Your task to perform on an android device: Clear the shopping cart on amazon.com. Add macbook pro 13 inch to the cart on amazon.com Image 0: 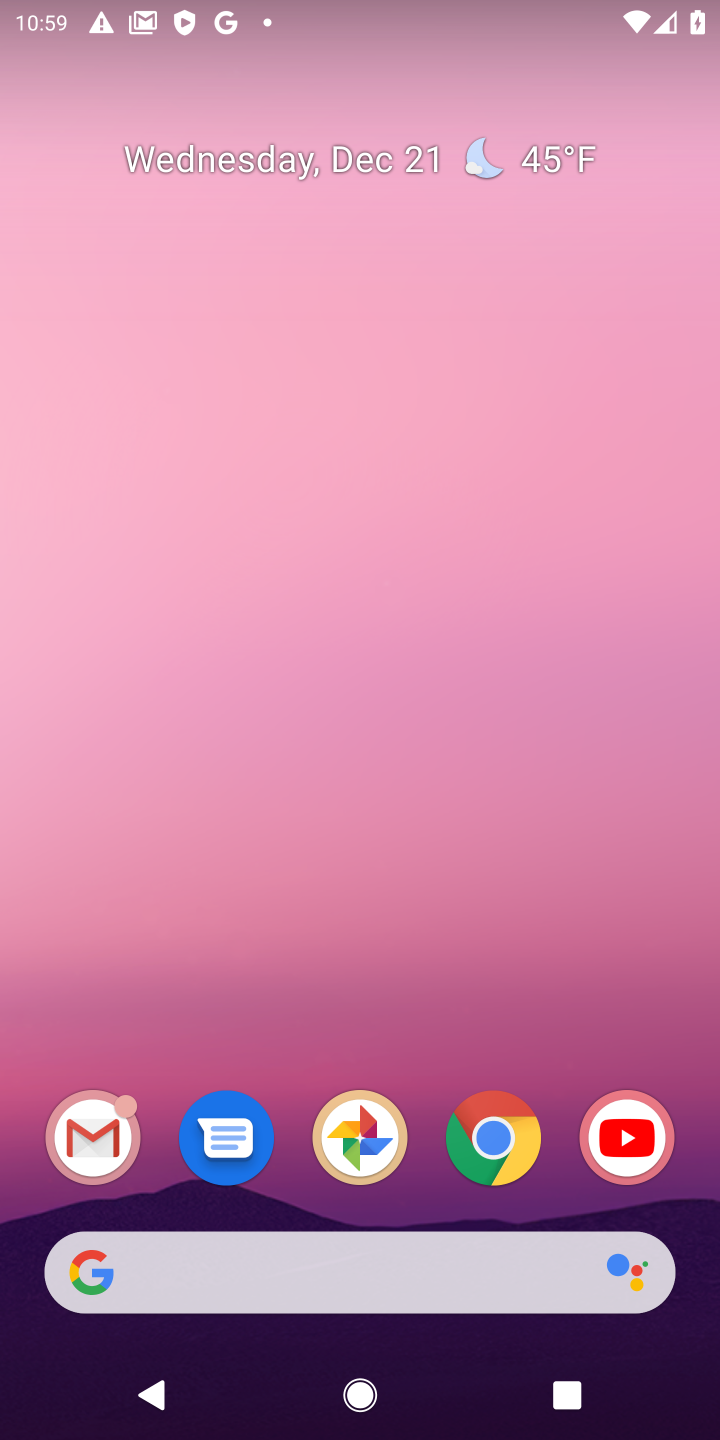
Step 0: click (506, 1147)
Your task to perform on an android device: Clear the shopping cart on amazon.com. Add macbook pro 13 inch to the cart on amazon.com Image 1: 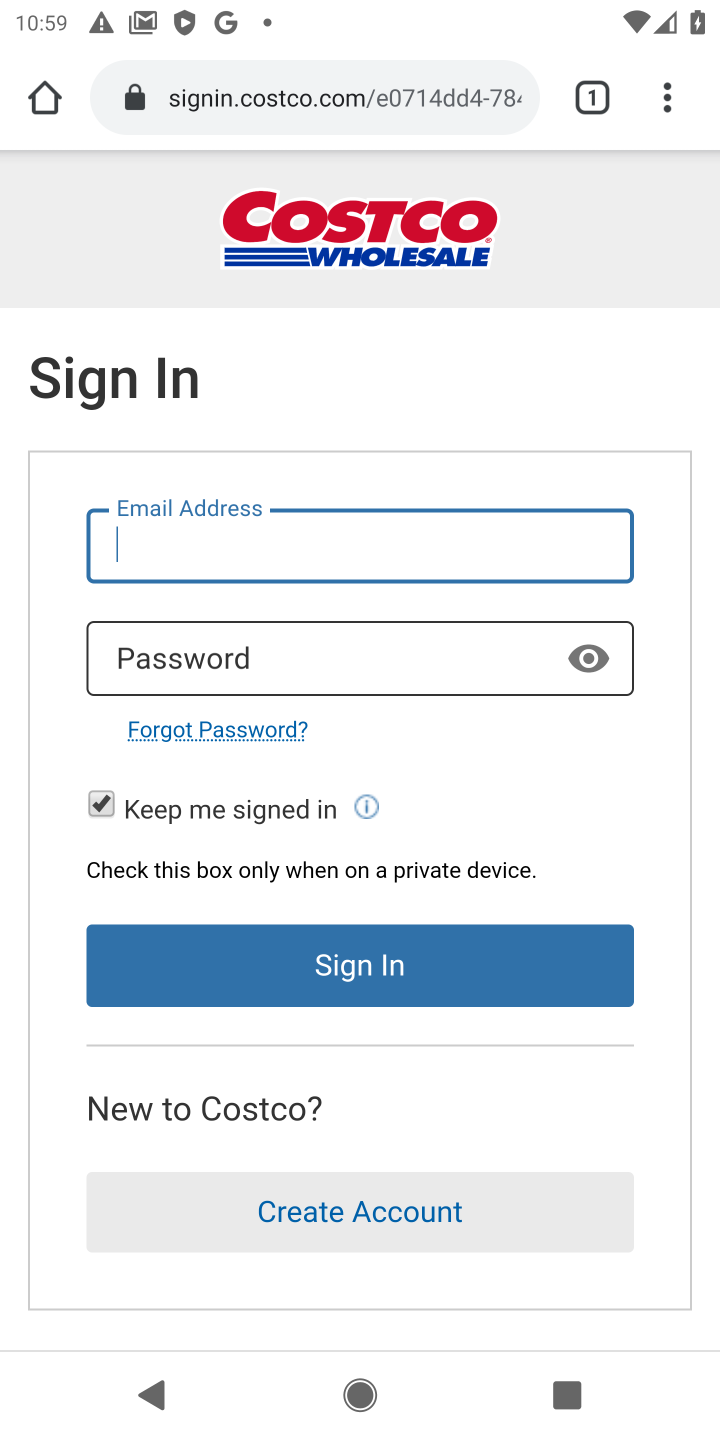
Step 1: click (276, 96)
Your task to perform on an android device: Clear the shopping cart on amazon.com. Add macbook pro 13 inch to the cart on amazon.com Image 2: 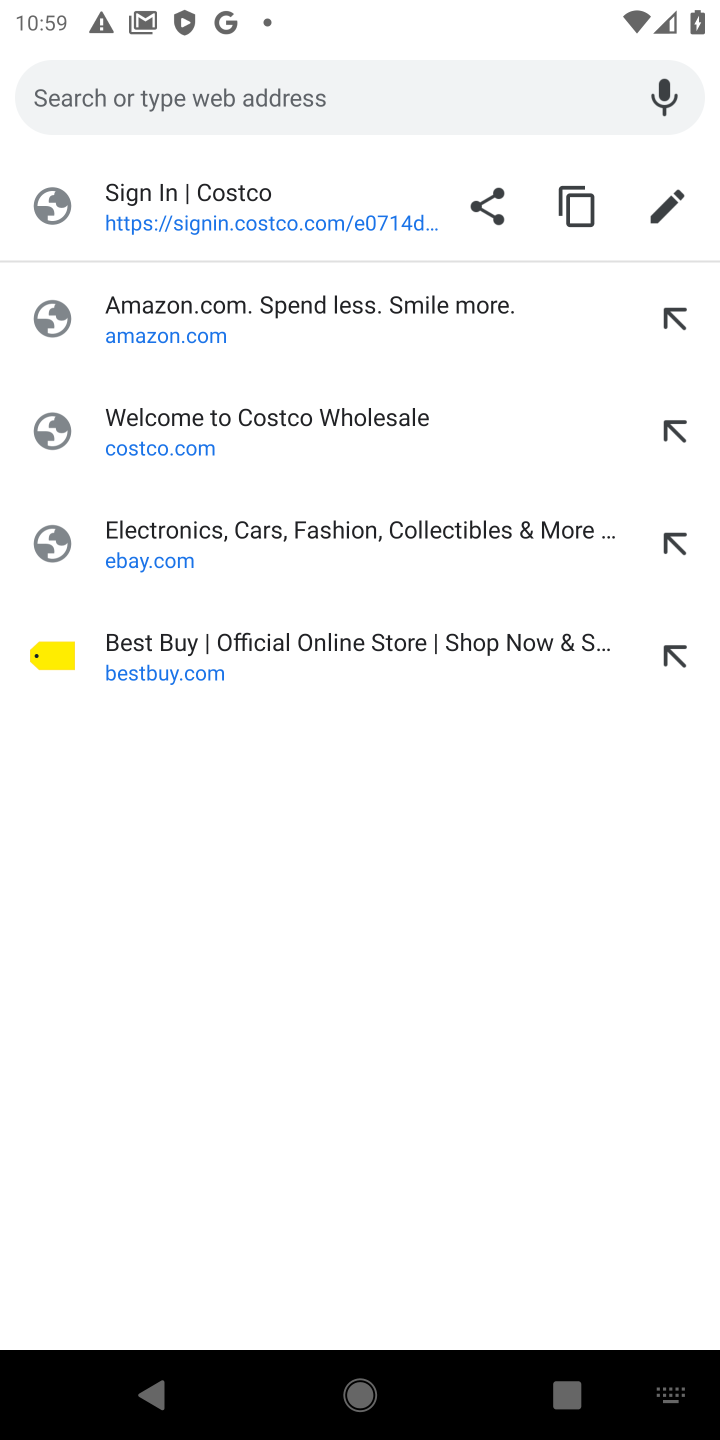
Step 2: click (150, 346)
Your task to perform on an android device: Clear the shopping cart on amazon.com. Add macbook pro 13 inch to the cart on amazon.com Image 3: 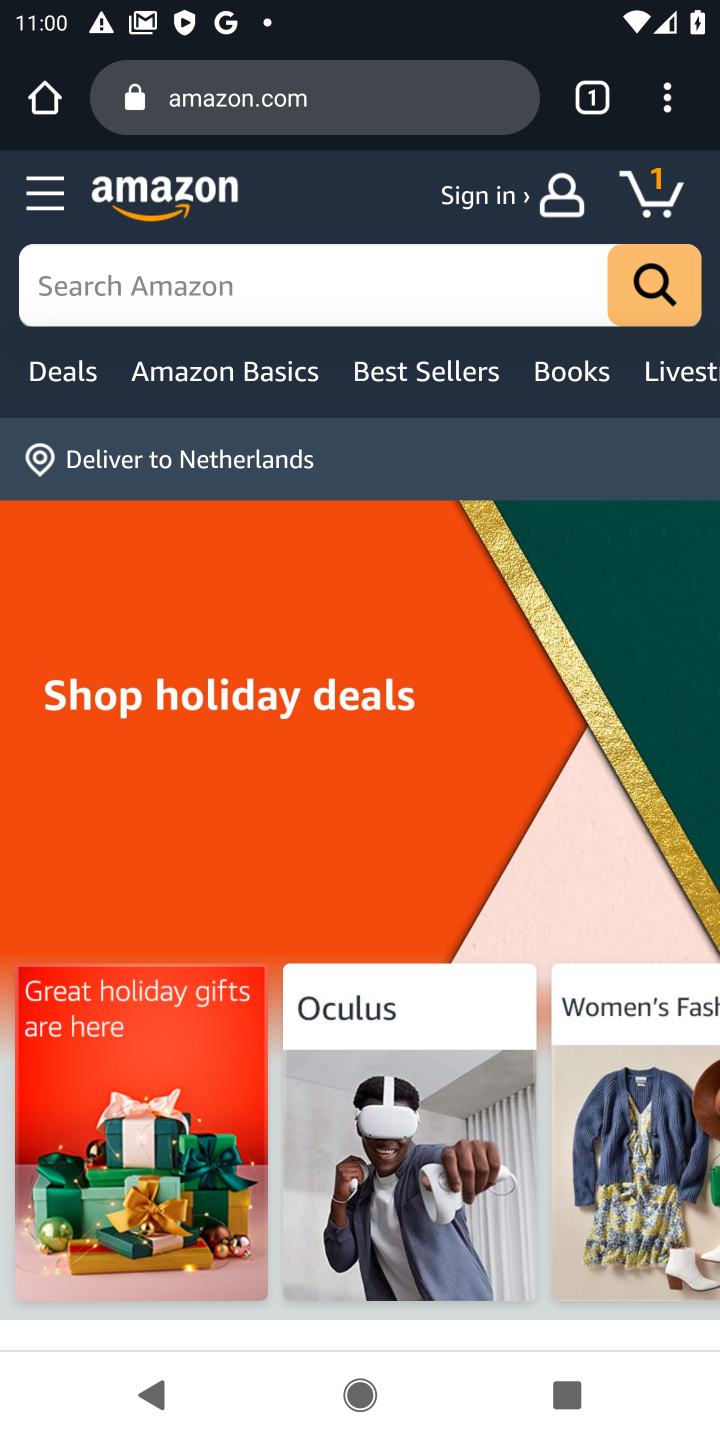
Step 3: click (647, 204)
Your task to perform on an android device: Clear the shopping cart on amazon.com. Add macbook pro 13 inch to the cart on amazon.com Image 4: 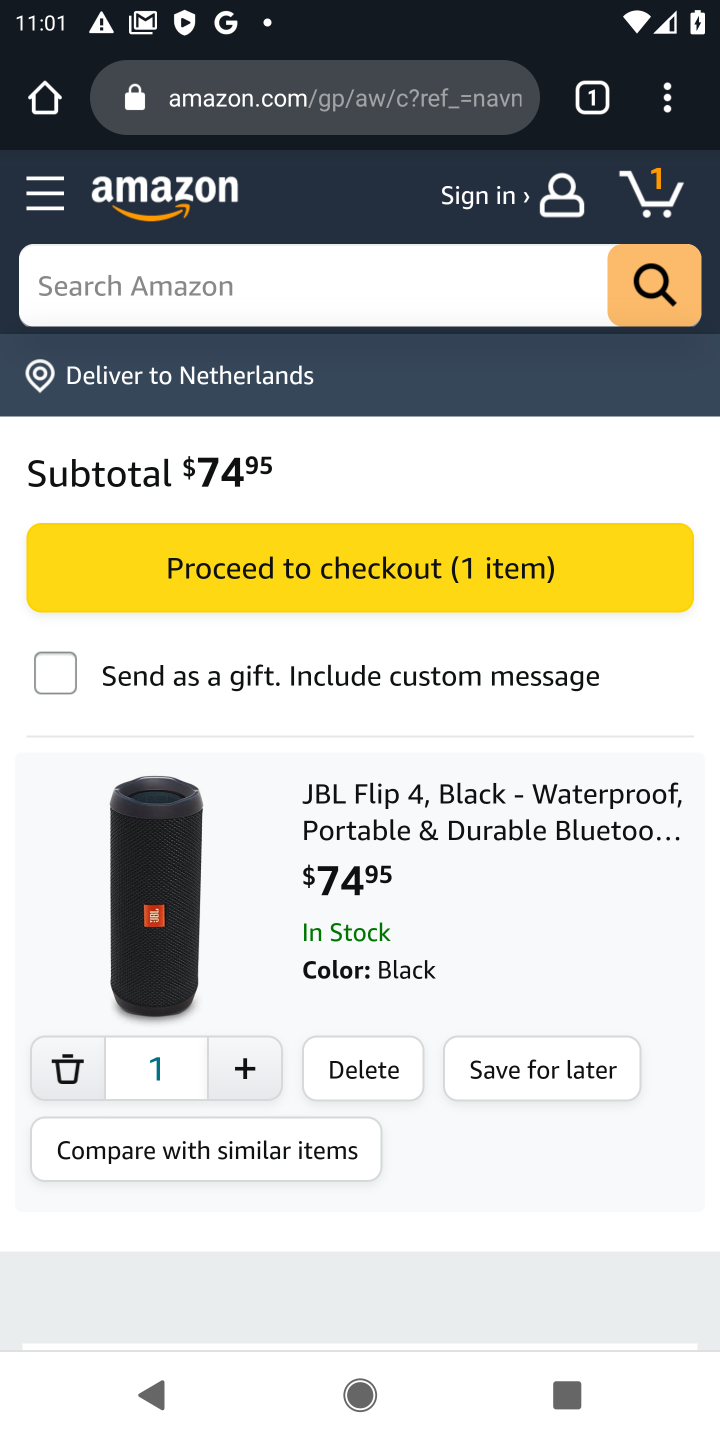
Step 4: click (368, 1065)
Your task to perform on an android device: Clear the shopping cart on amazon.com. Add macbook pro 13 inch to the cart on amazon.com Image 5: 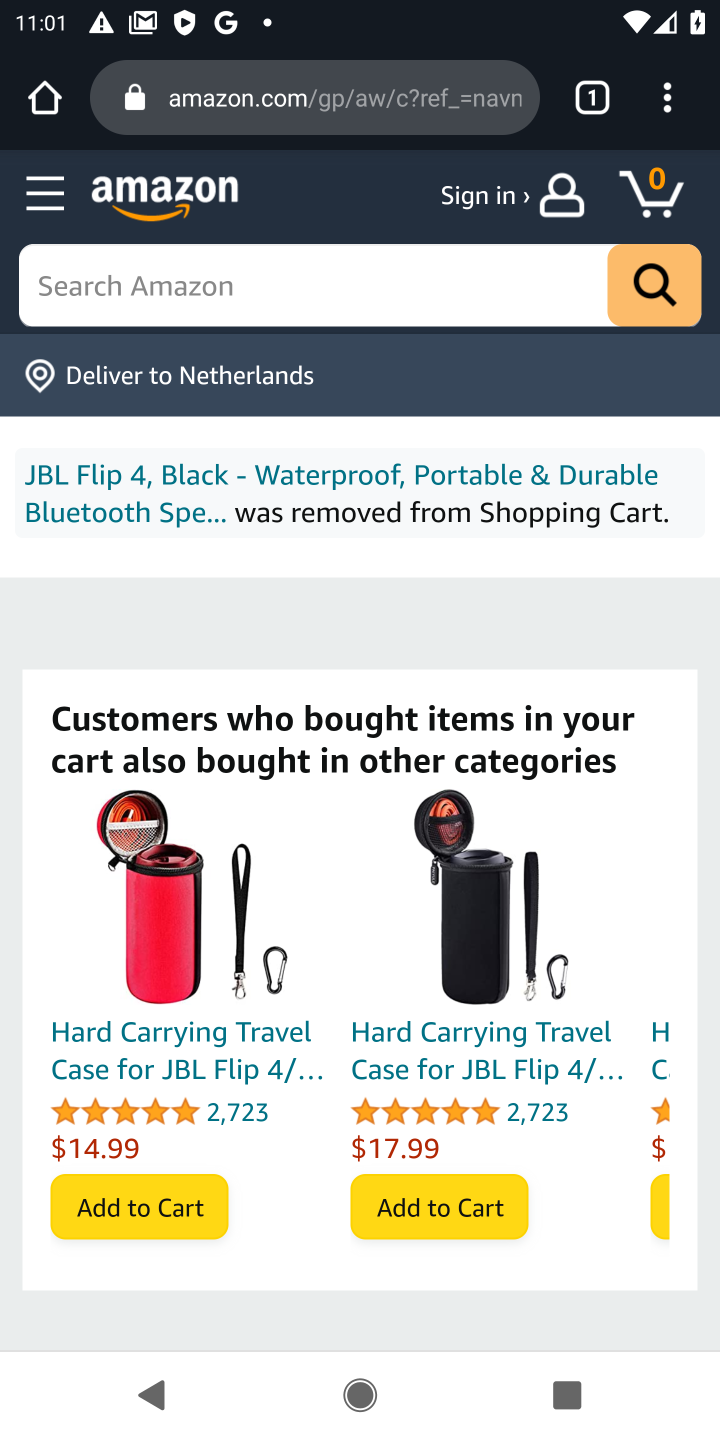
Step 5: click (164, 281)
Your task to perform on an android device: Clear the shopping cart on amazon.com. Add macbook pro 13 inch to the cart on amazon.com Image 6: 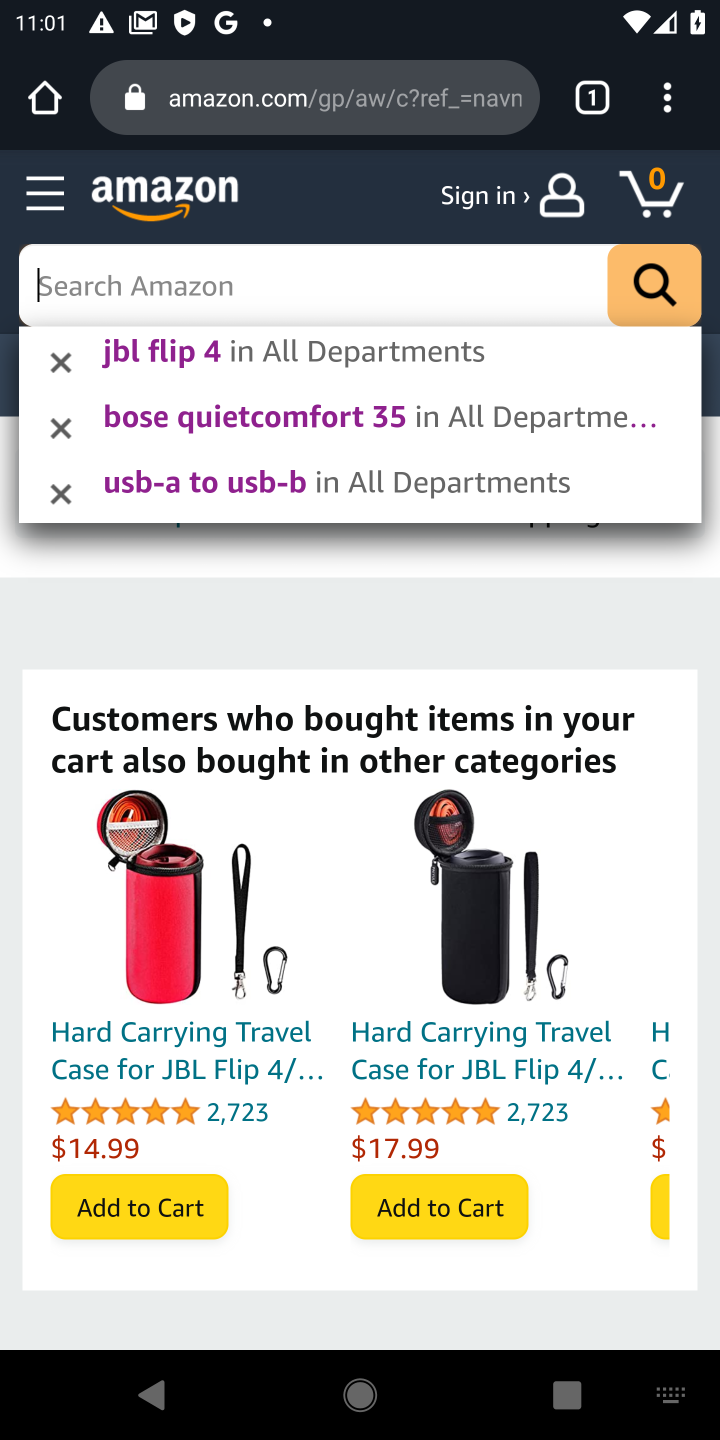
Step 6: click (89, 285)
Your task to perform on an android device: Clear the shopping cart on amazon.com. Add macbook pro 13 inch to the cart on amazon.com Image 7: 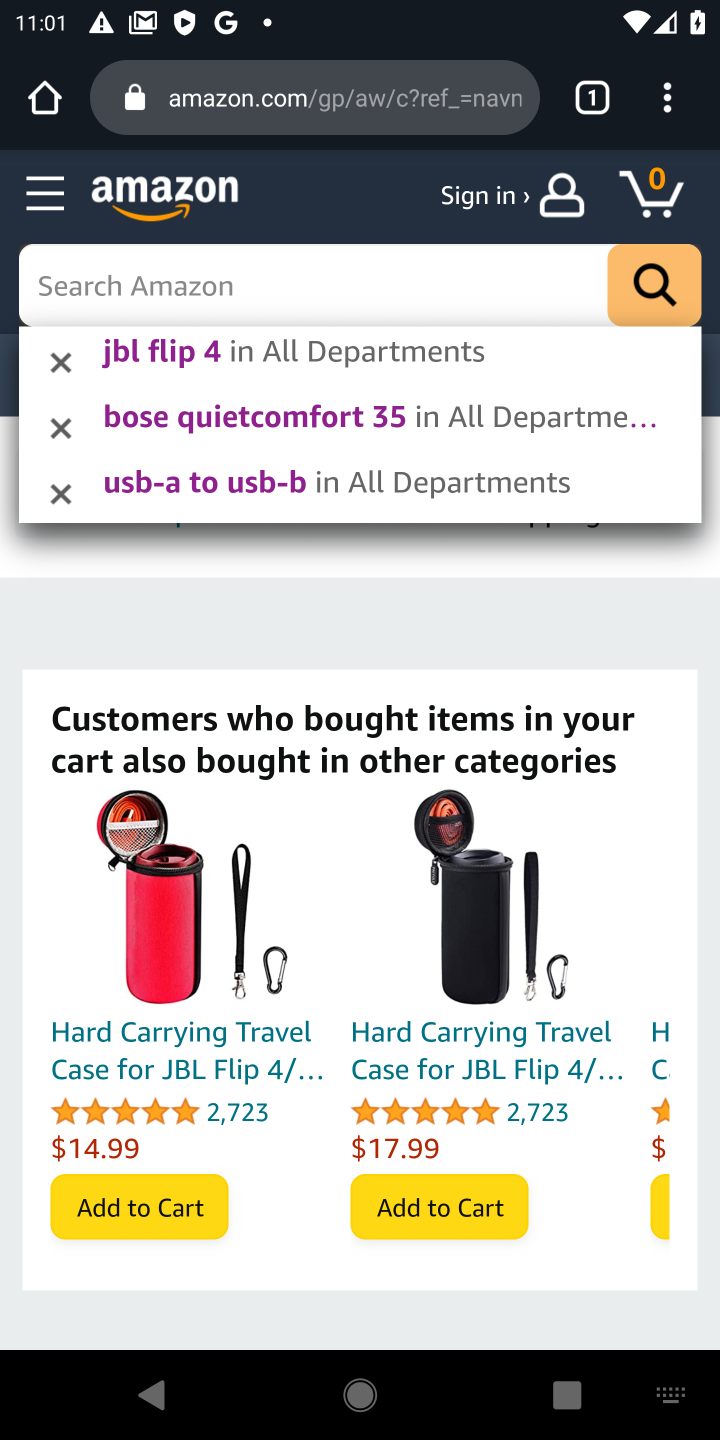
Step 7: type "macbook pro 13 inch"
Your task to perform on an android device: Clear the shopping cart on amazon.com. Add macbook pro 13 inch to the cart on amazon.com Image 8: 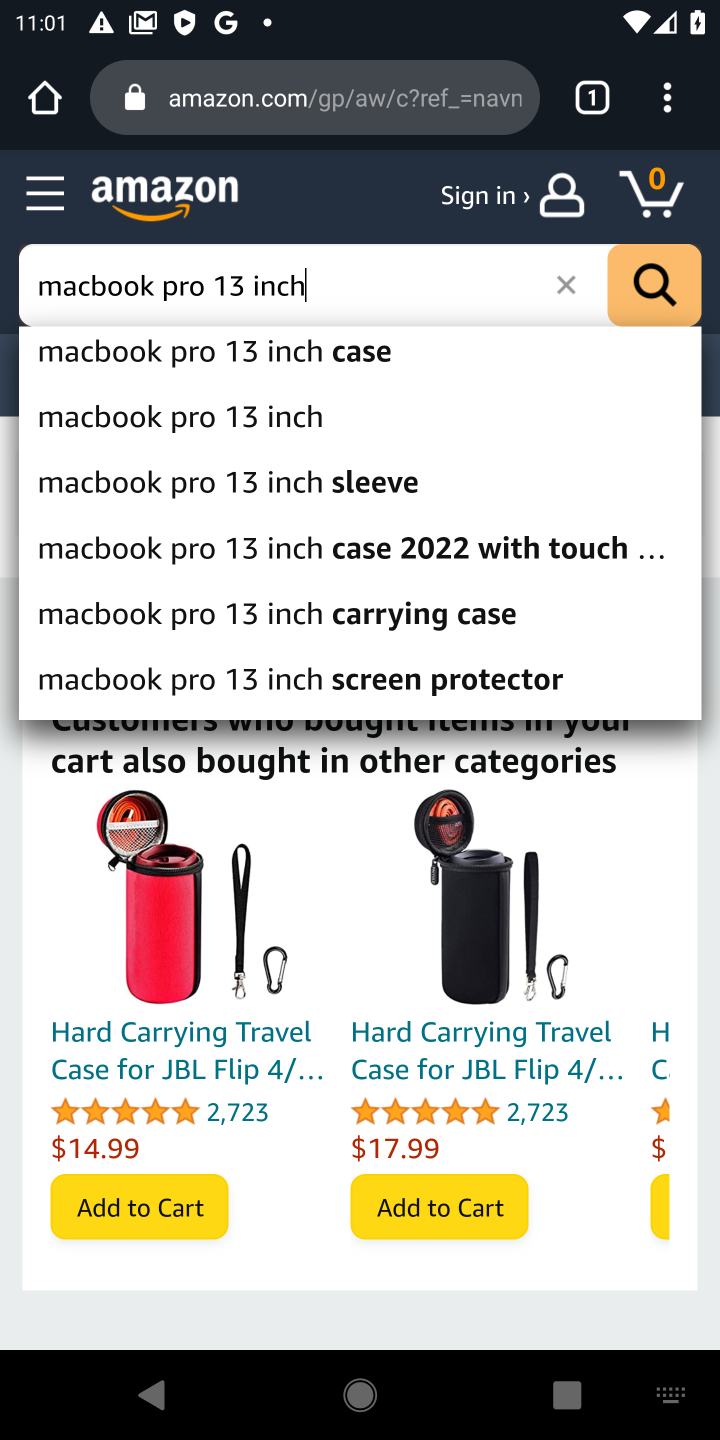
Step 8: click (229, 424)
Your task to perform on an android device: Clear the shopping cart on amazon.com. Add macbook pro 13 inch to the cart on amazon.com Image 9: 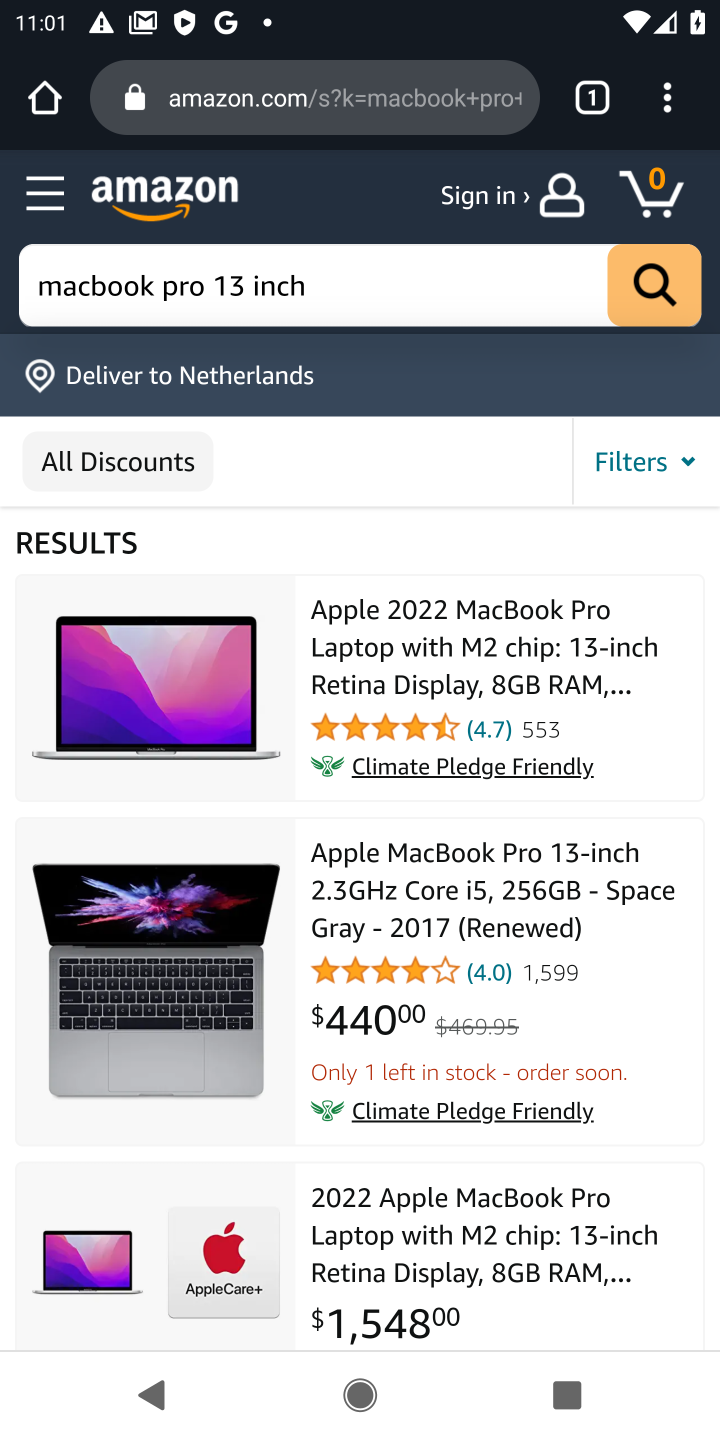
Step 9: drag from (407, 864) to (429, 608)
Your task to perform on an android device: Clear the shopping cart on amazon.com. Add macbook pro 13 inch to the cart on amazon.com Image 10: 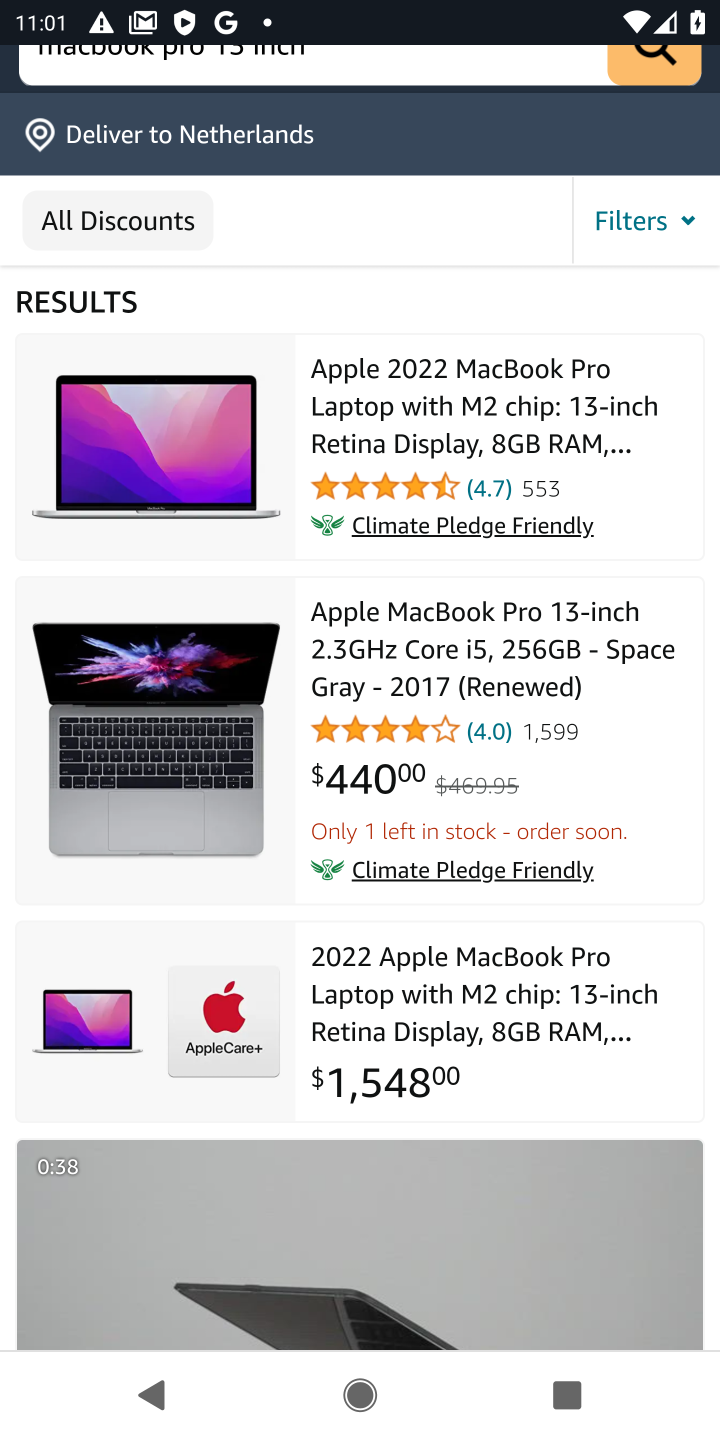
Step 10: drag from (383, 797) to (399, 449)
Your task to perform on an android device: Clear the shopping cart on amazon.com. Add macbook pro 13 inch to the cart on amazon.com Image 11: 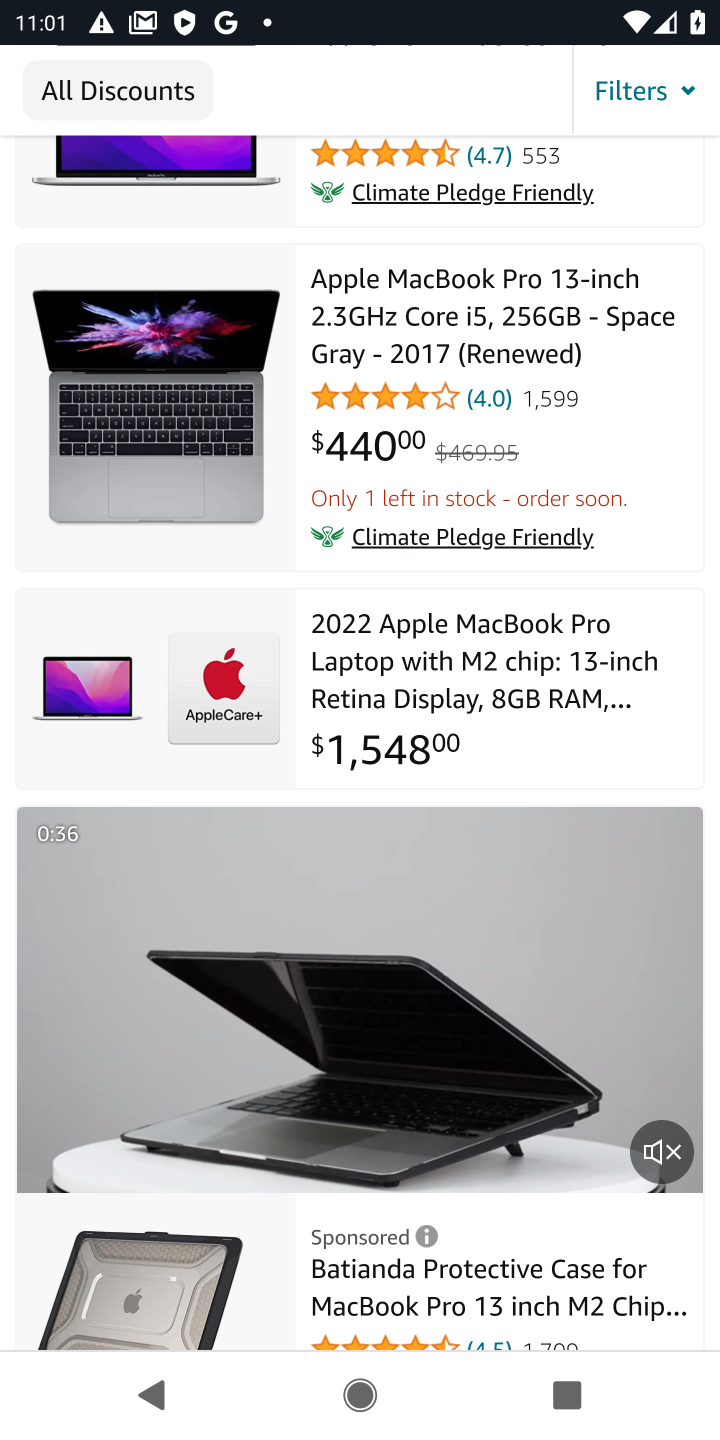
Step 11: drag from (407, 820) to (409, 513)
Your task to perform on an android device: Clear the shopping cart on amazon.com. Add macbook pro 13 inch to the cart on amazon.com Image 12: 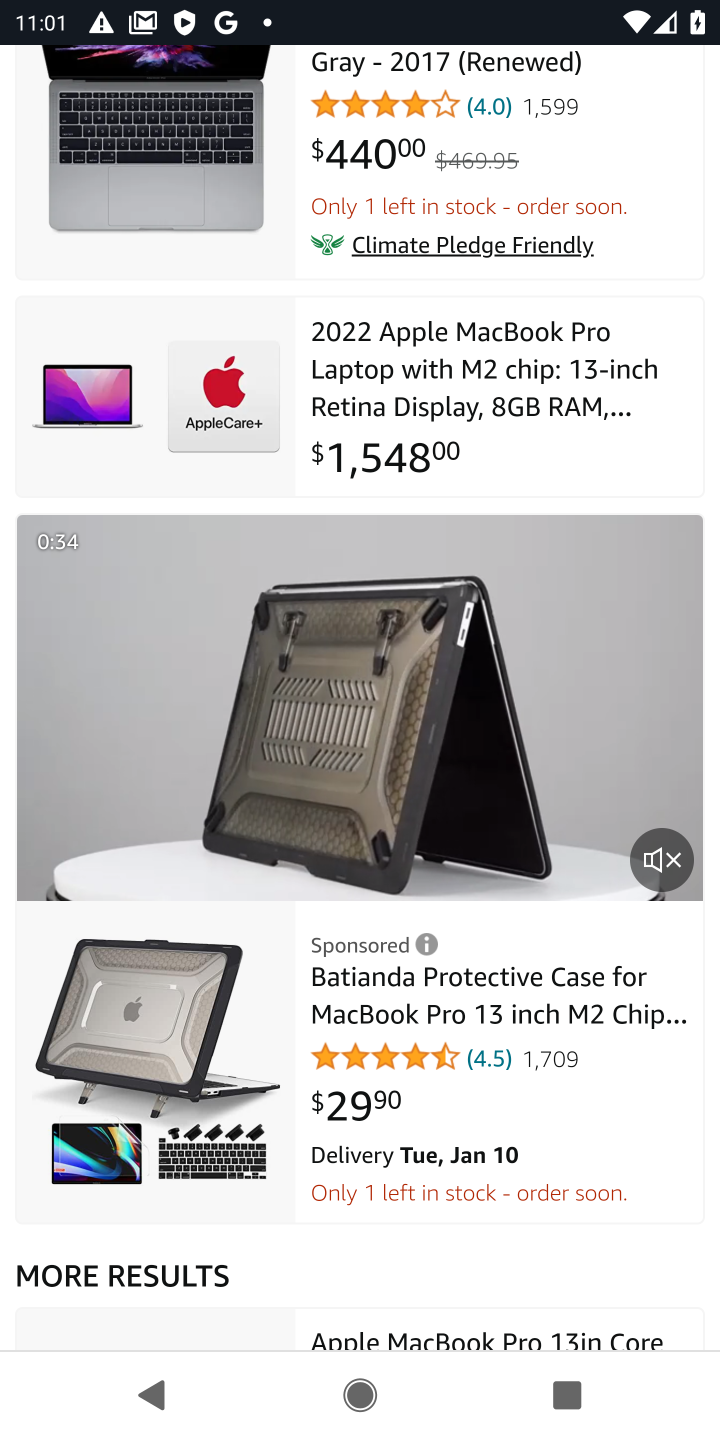
Step 12: drag from (409, 871) to (405, 574)
Your task to perform on an android device: Clear the shopping cart on amazon.com. Add macbook pro 13 inch to the cart on amazon.com Image 13: 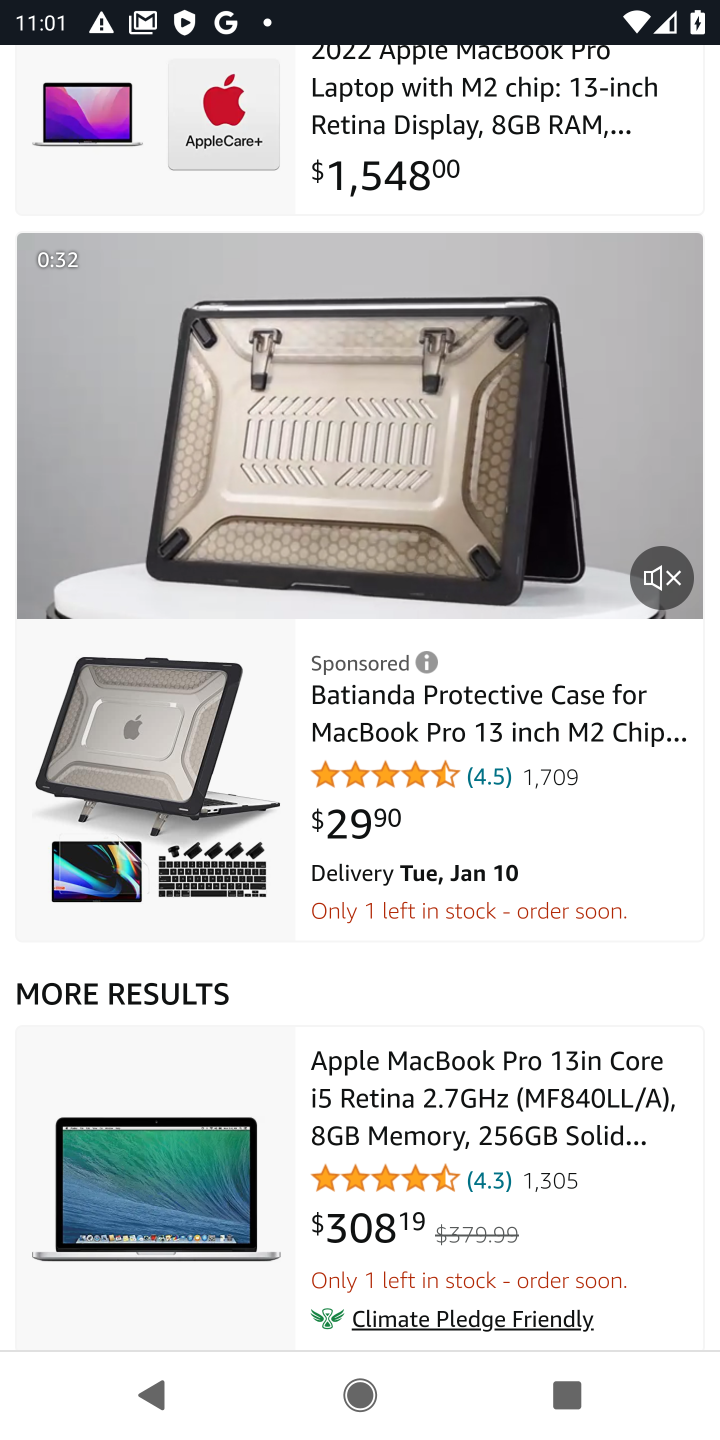
Step 13: drag from (352, 1084) to (375, 676)
Your task to perform on an android device: Clear the shopping cart on amazon.com. Add macbook pro 13 inch to the cart on amazon.com Image 14: 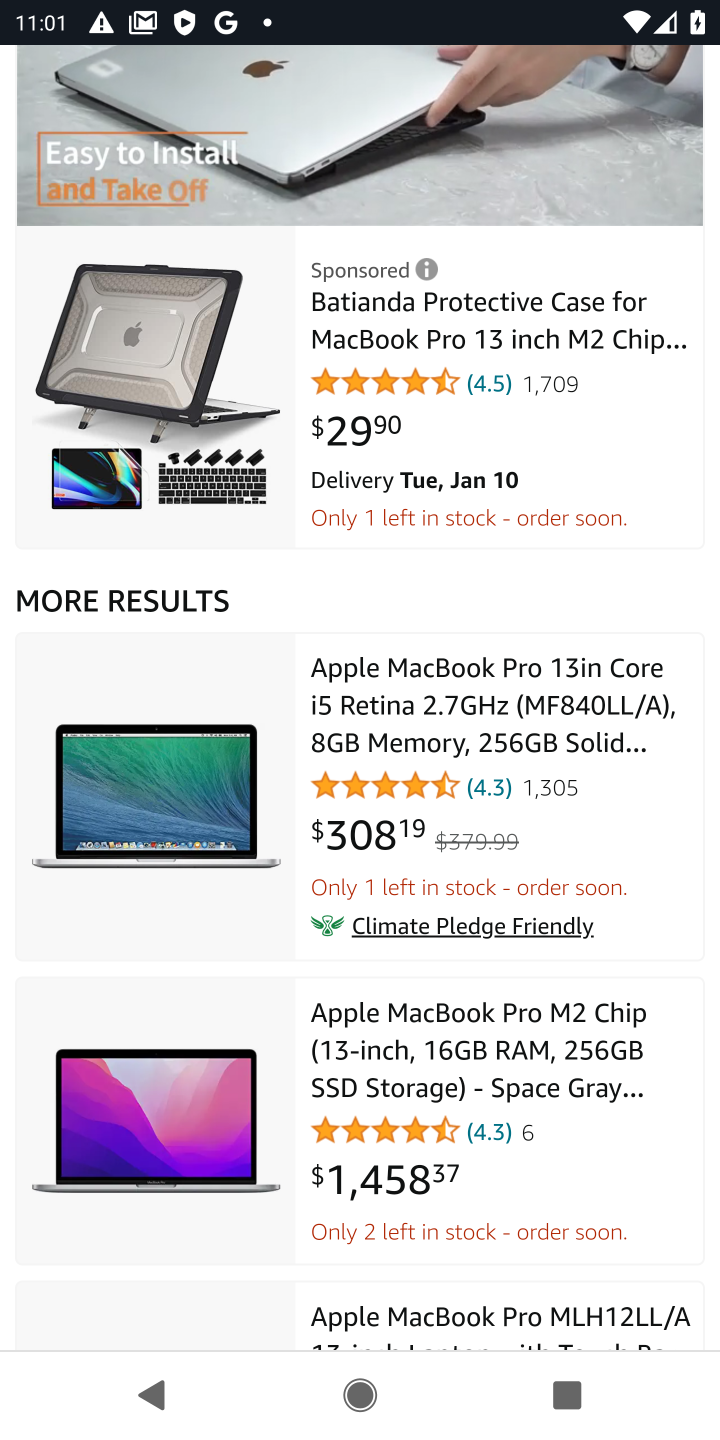
Step 14: drag from (371, 690) to (367, 1229)
Your task to perform on an android device: Clear the shopping cart on amazon.com. Add macbook pro 13 inch to the cart on amazon.com Image 15: 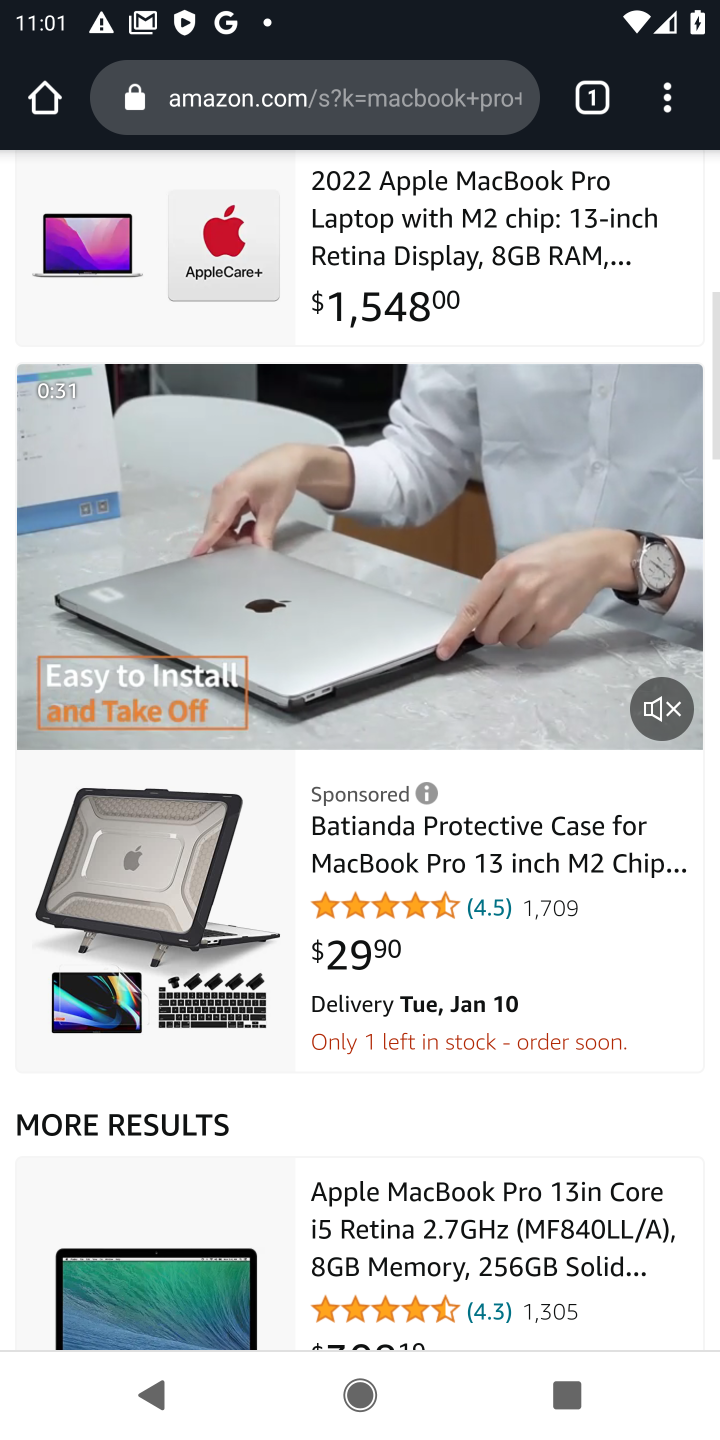
Step 15: drag from (401, 836) to (401, 1148)
Your task to perform on an android device: Clear the shopping cart on amazon.com. Add macbook pro 13 inch to the cart on amazon.com Image 16: 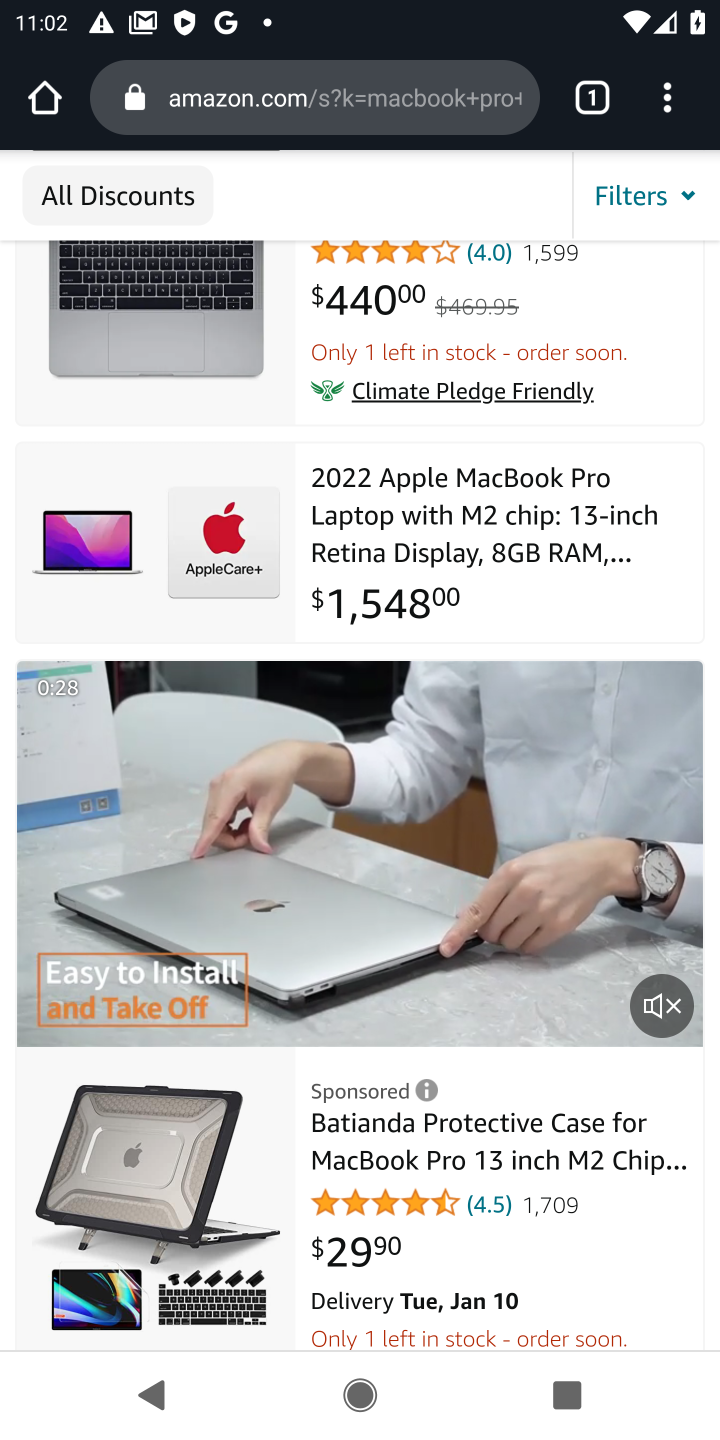
Step 16: drag from (451, 542) to (441, 947)
Your task to perform on an android device: Clear the shopping cart on amazon.com. Add macbook pro 13 inch to the cart on amazon.com Image 17: 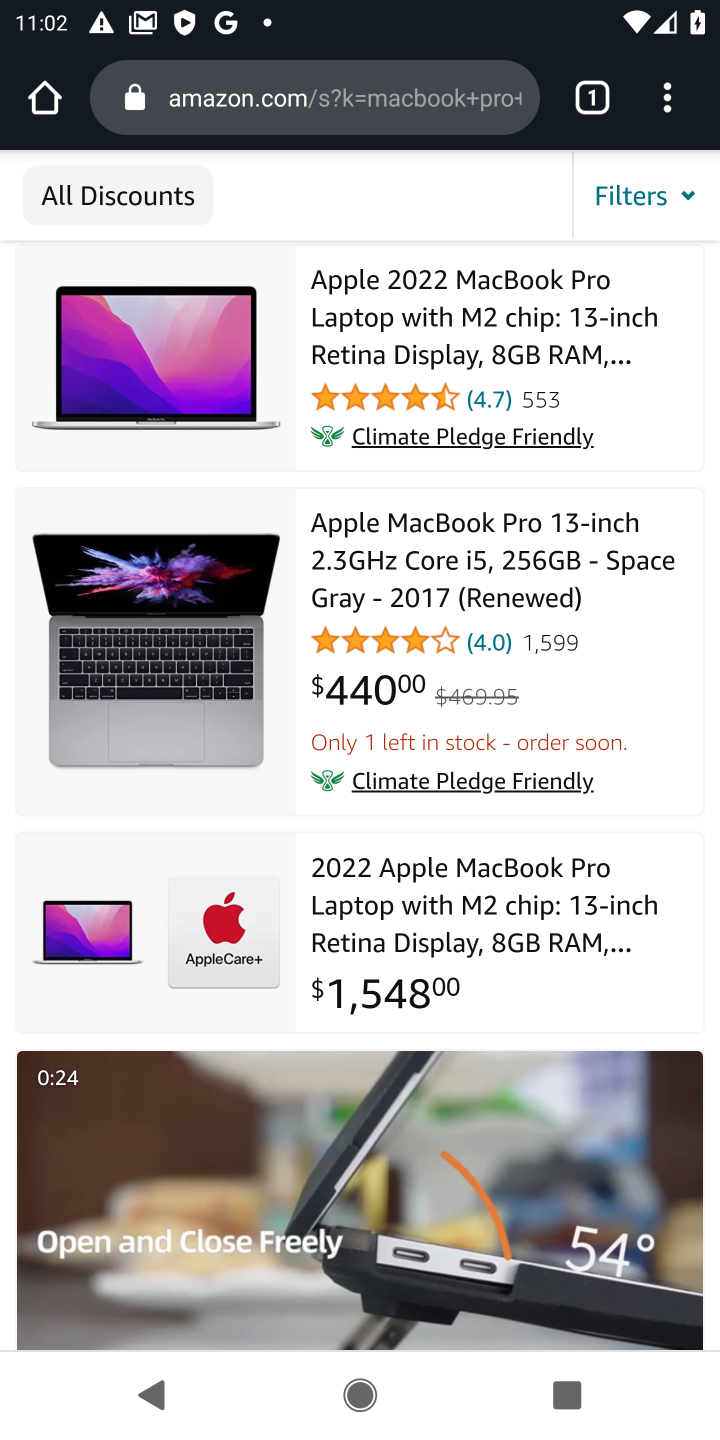
Step 17: click (409, 573)
Your task to perform on an android device: Clear the shopping cart on amazon.com. Add macbook pro 13 inch to the cart on amazon.com Image 18: 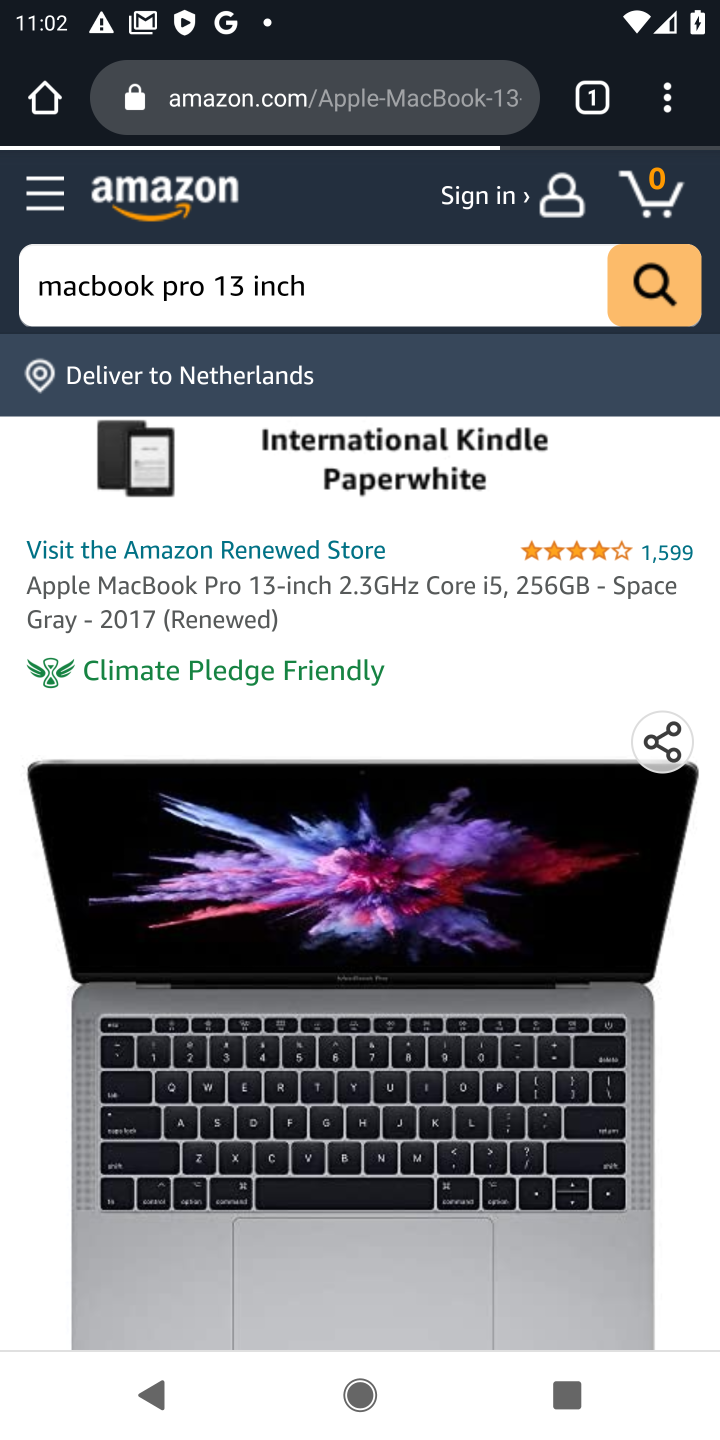
Step 18: drag from (318, 999) to (333, 429)
Your task to perform on an android device: Clear the shopping cart on amazon.com. Add macbook pro 13 inch to the cart on amazon.com Image 19: 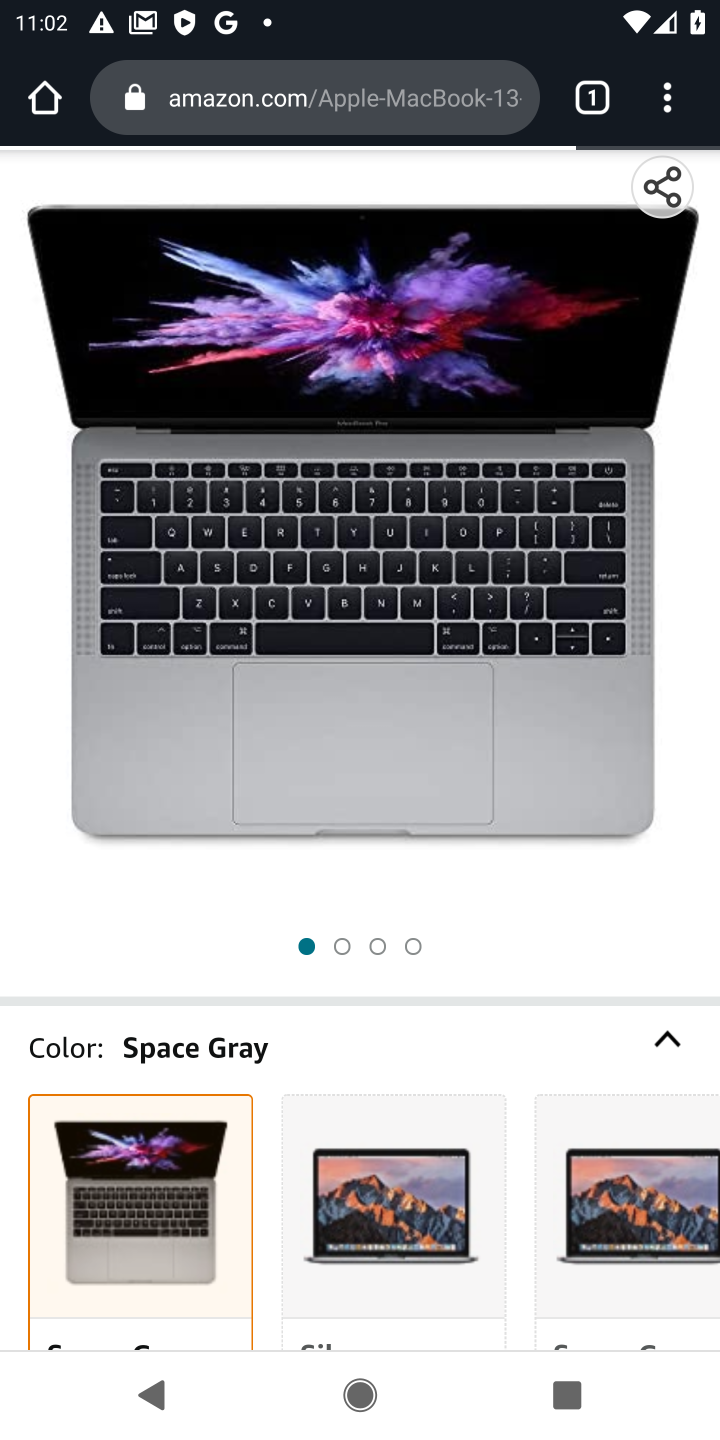
Step 19: drag from (308, 1049) to (339, 449)
Your task to perform on an android device: Clear the shopping cart on amazon.com. Add macbook pro 13 inch to the cart on amazon.com Image 20: 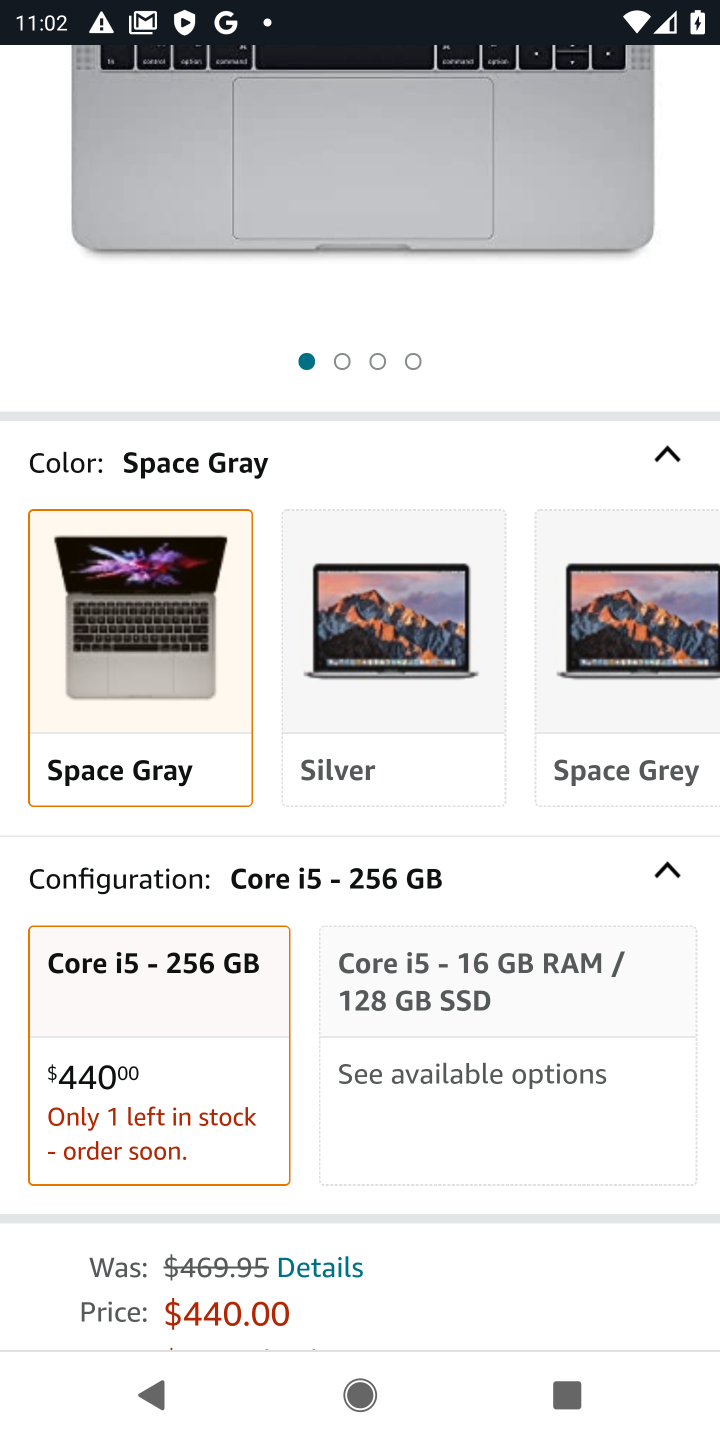
Step 20: drag from (347, 887) to (371, 614)
Your task to perform on an android device: Clear the shopping cart on amazon.com. Add macbook pro 13 inch to the cart on amazon.com Image 21: 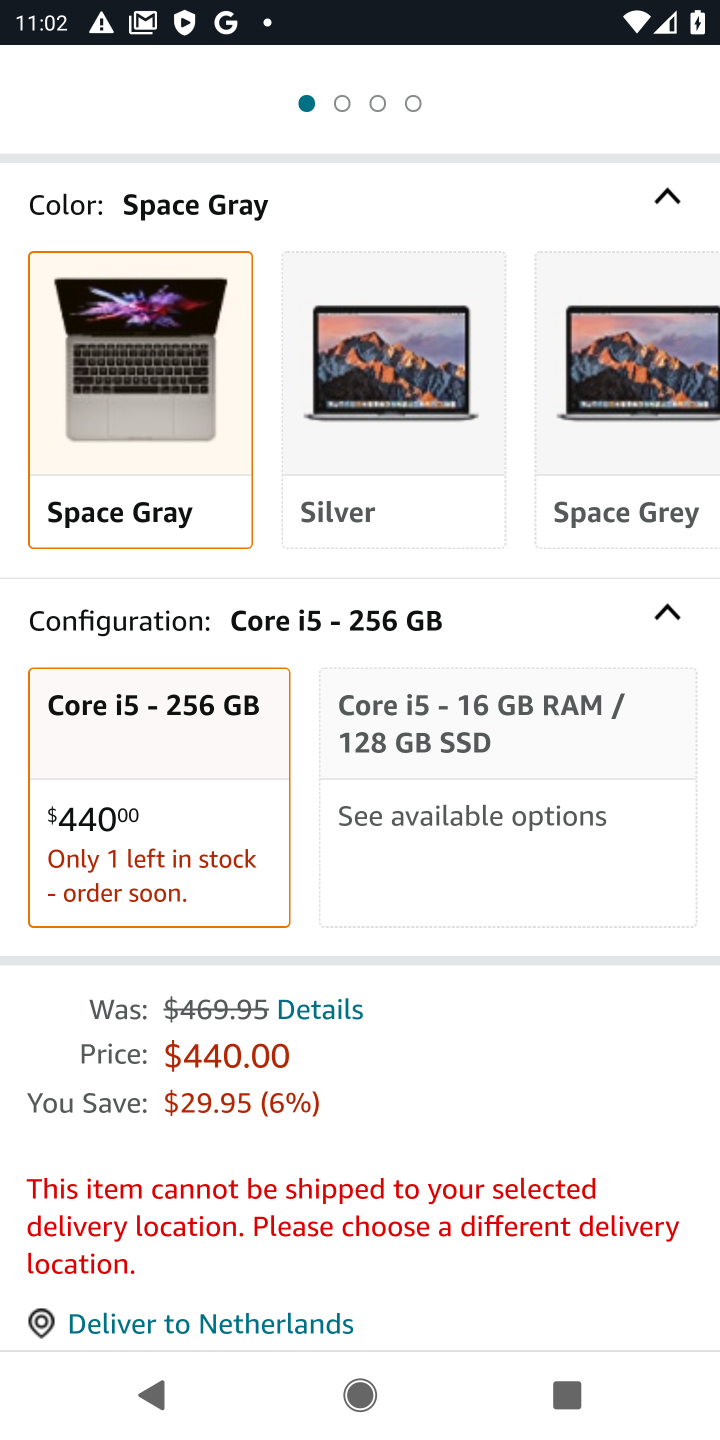
Step 21: drag from (404, 944) to (419, 644)
Your task to perform on an android device: Clear the shopping cart on amazon.com. Add macbook pro 13 inch to the cart on amazon.com Image 22: 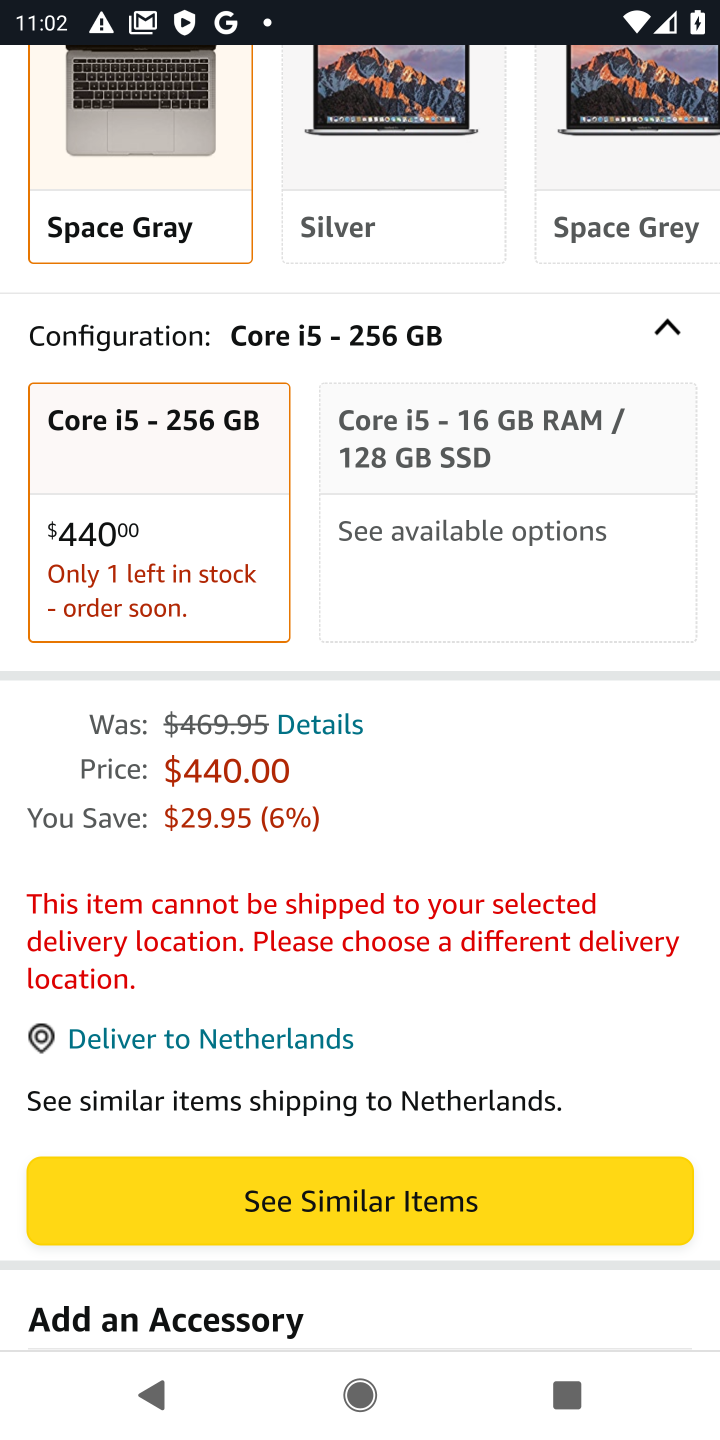
Step 22: press back button
Your task to perform on an android device: Clear the shopping cart on amazon.com. Add macbook pro 13 inch to the cart on amazon.com Image 23: 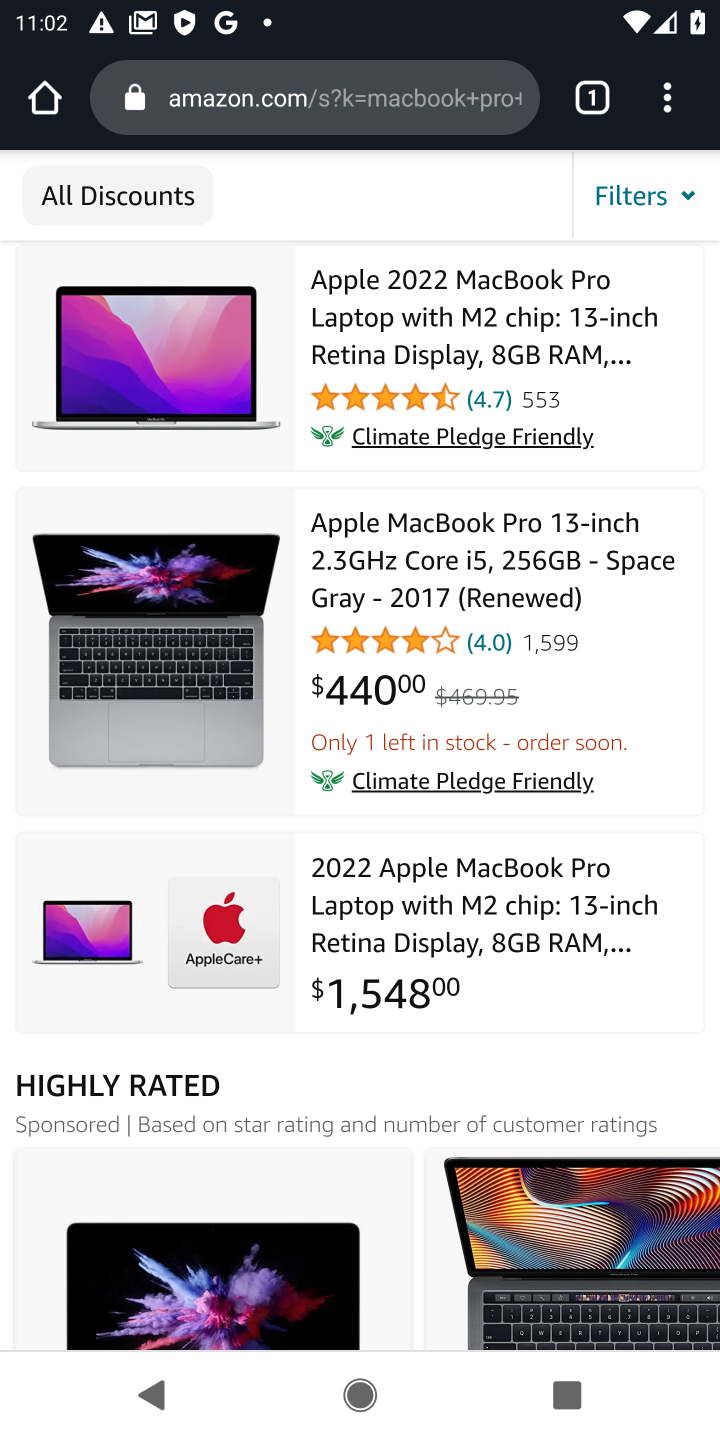
Step 23: drag from (304, 953) to (327, 466)
Your task to perform on an android device: Clear the shopping cart on amazon.com. Add macbook pro 13 inch to the cart on amazon.com Image 24: 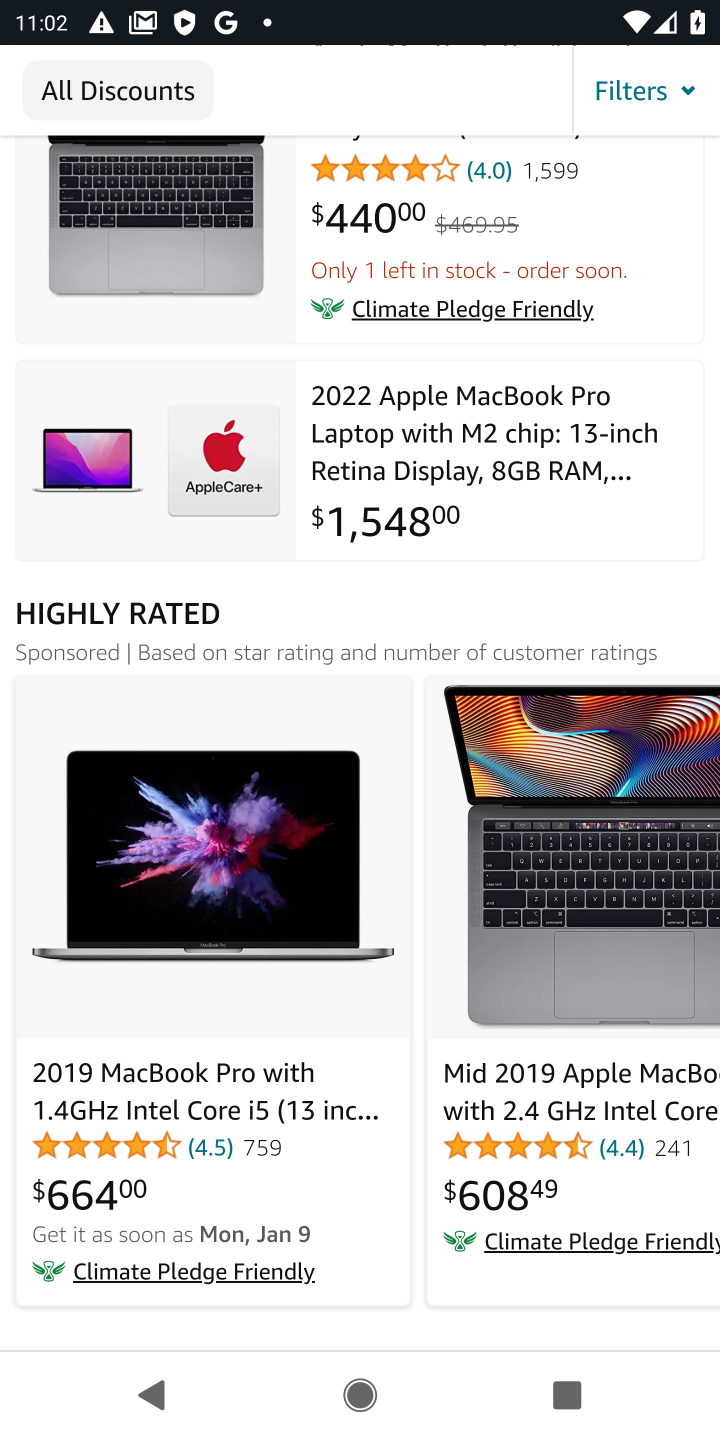
Step 24: drag from (312, 942) to (334, 501)
Your task to perform on an android device: Clear the shopping cart on amazon.com. Add macbook pro 13 inch to the cart on amazon.com Image 25: 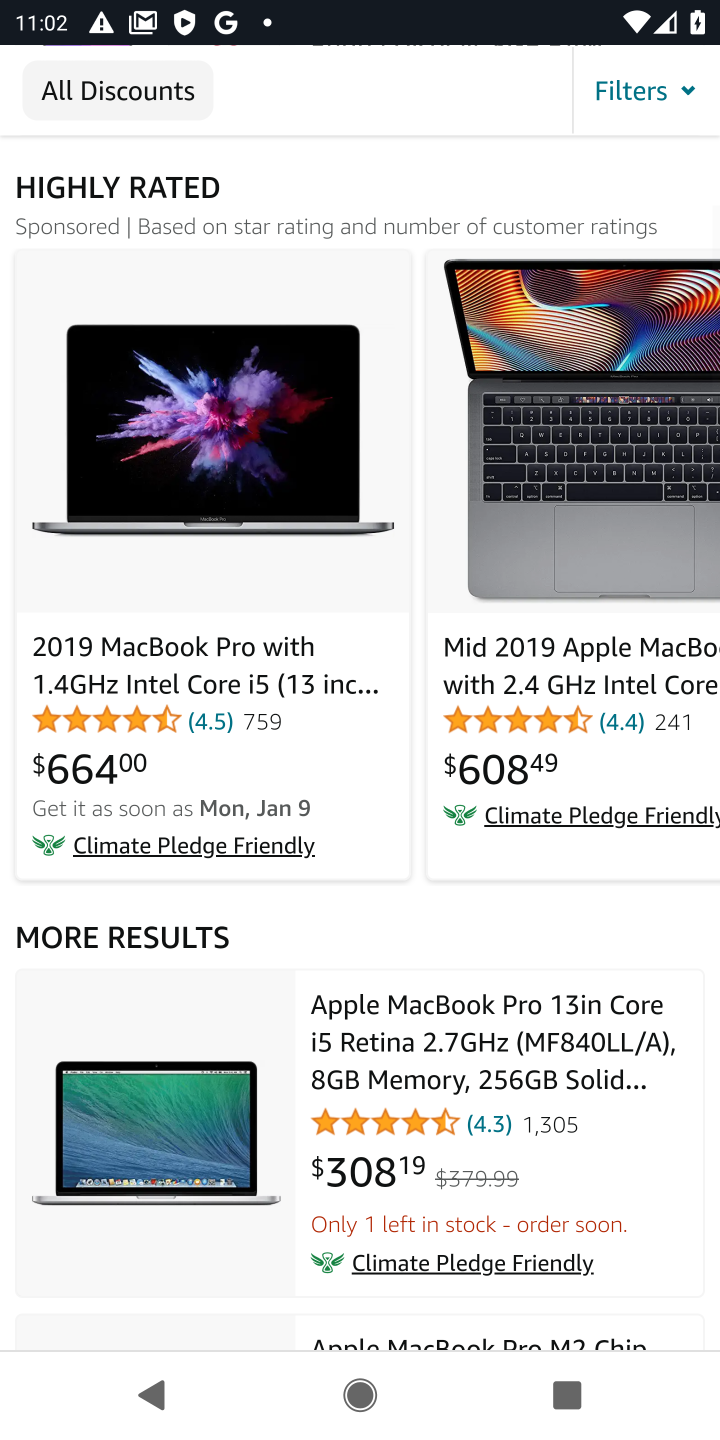
Step 25: drag from (214, 976) to (239, 466)
Your task to perform on an android device: Clear the shopping cart on amazon.com. Add macbook pro 13 inch to the cart on amazon.com Image 26: 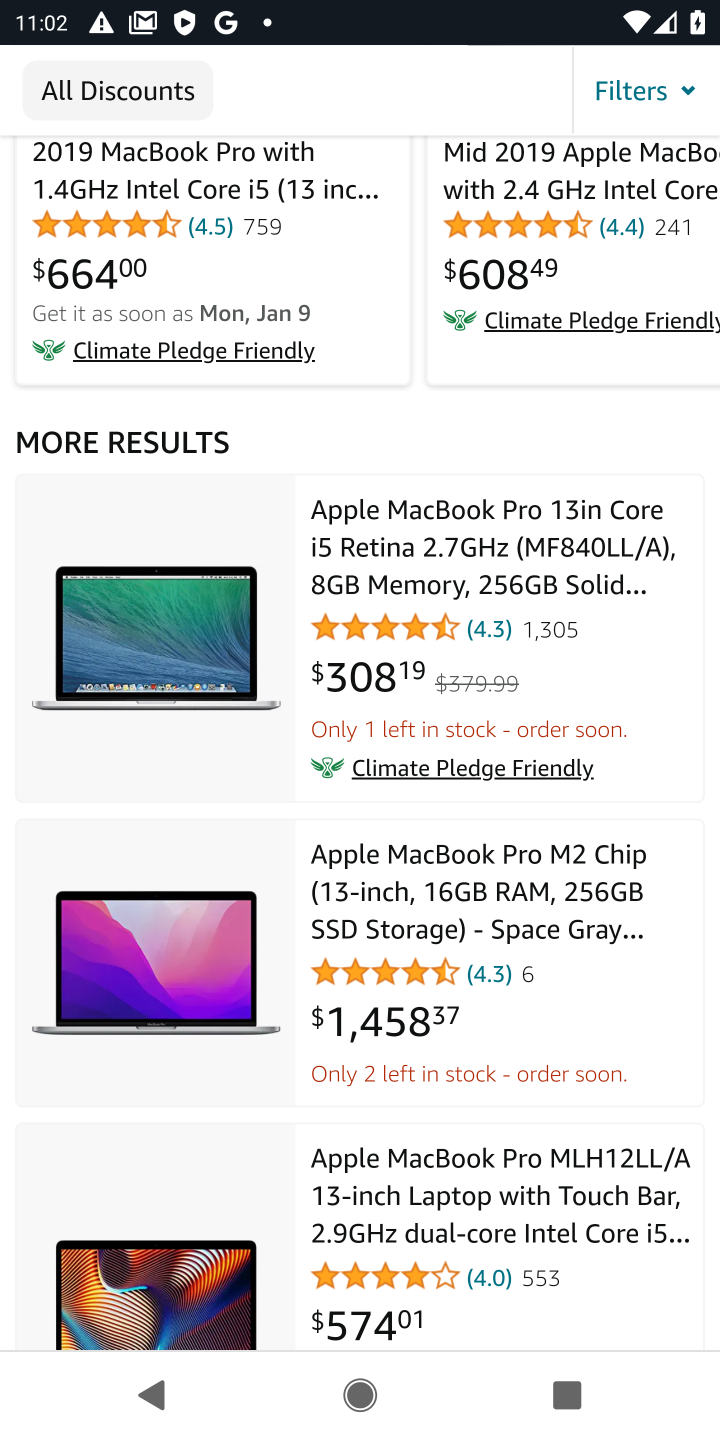
Step 26: drag from (230, 936) to (234, 497)
Your task to perform on an android device: Clear the shopping cart on amazon.com. Add macbook pro 13 inch to the cart on amazon.com Image 27: 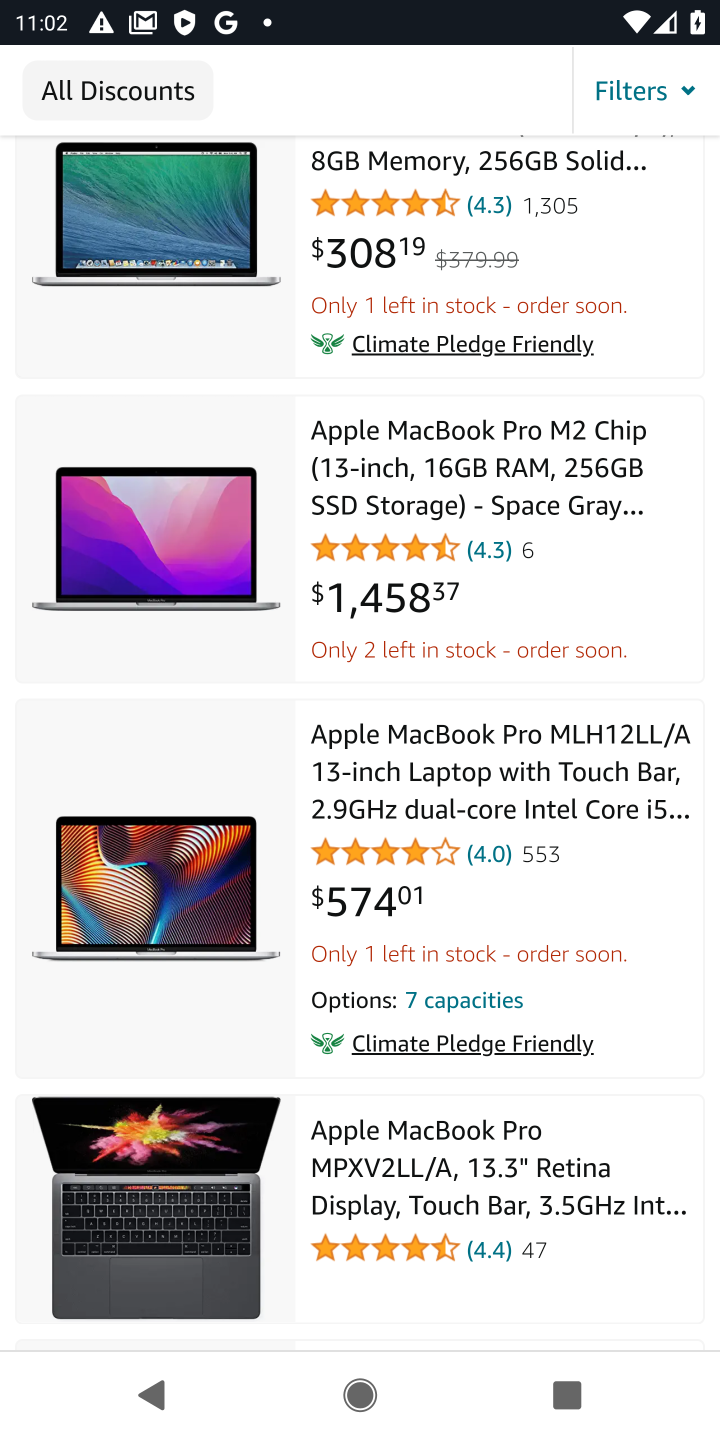
Step 27: click (463, 798)
Your task to perform on an android device: Clear the shopping cart on amazon.com. Add macbook pro 13 inch to the cart on amazon.com Image 28: 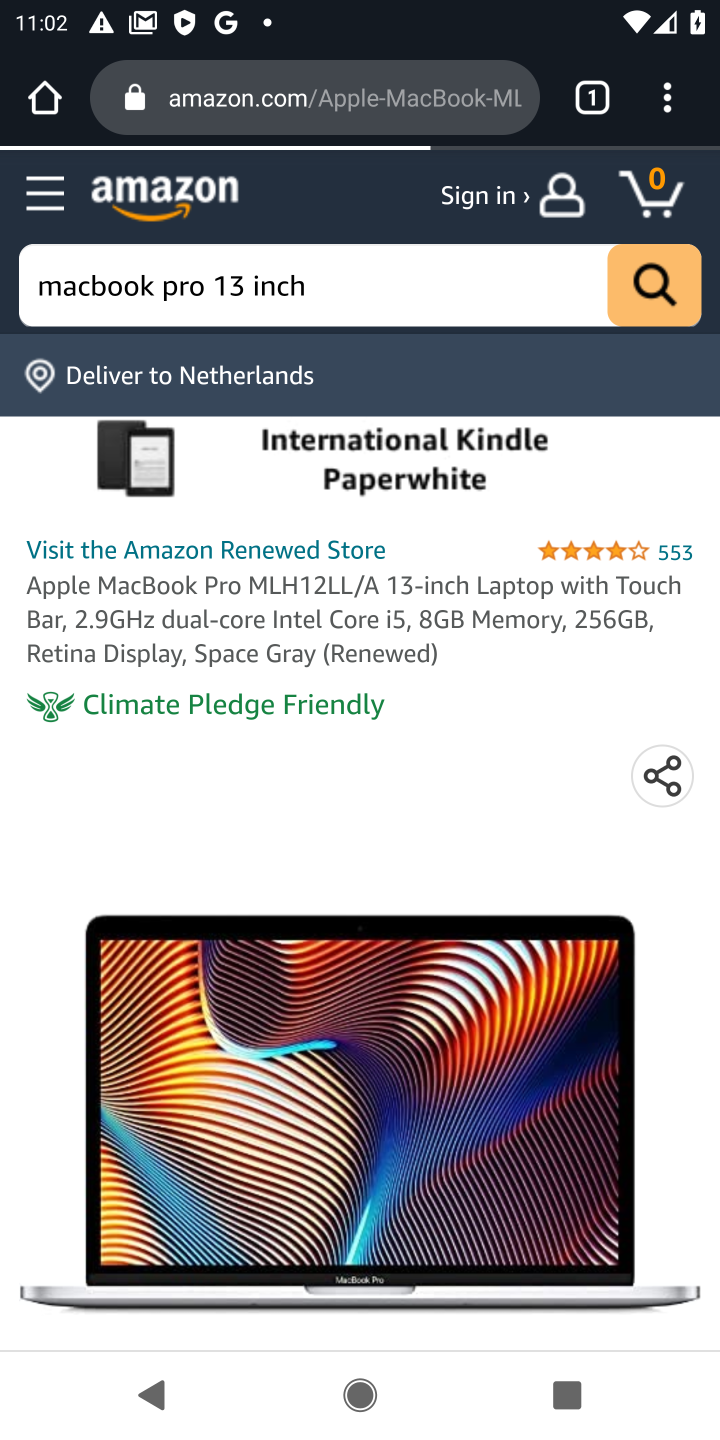
Step 28: task complete